Your task to perform on an android device: Search for vegetarian restaurants on Maps Image 0: 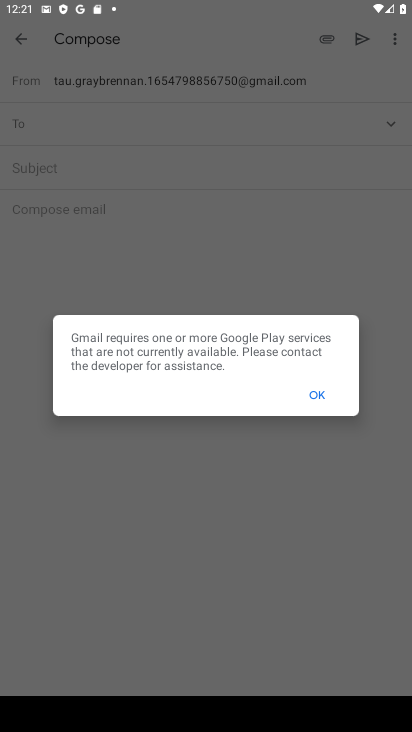
Step 0: press home button
Your task to perform on an android device: Search for vegetarian restaurants on Maps Image 1: 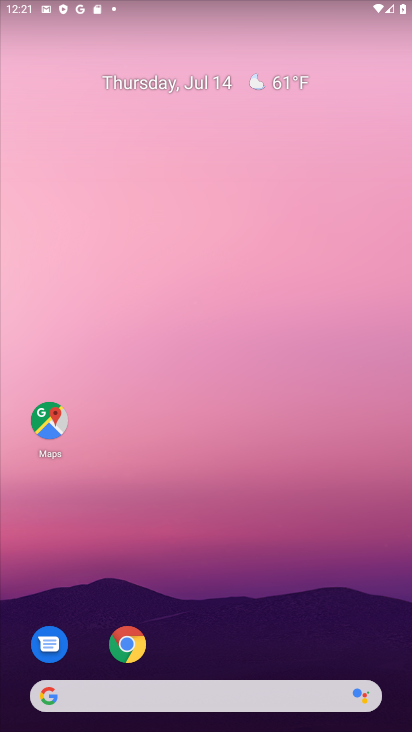
Step 1: click (62, 424)
Your task to perform on an android device: Search for vegetarian restaurants on Maps Image 2: 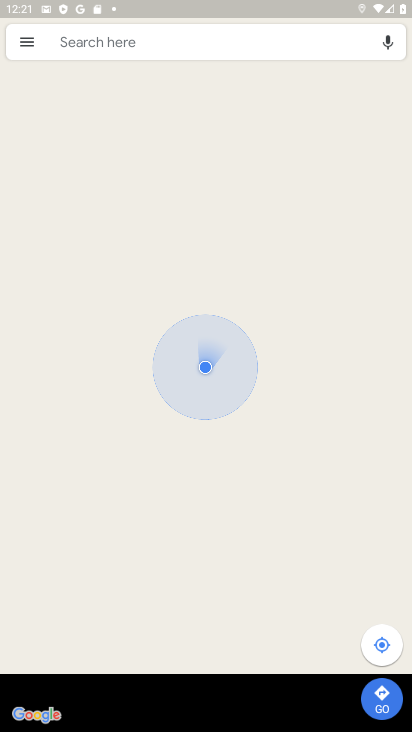
Step 2: click (272, 33)
Your task to perform on an android device: Search for vegetarian restaurants on Maps Image 3: 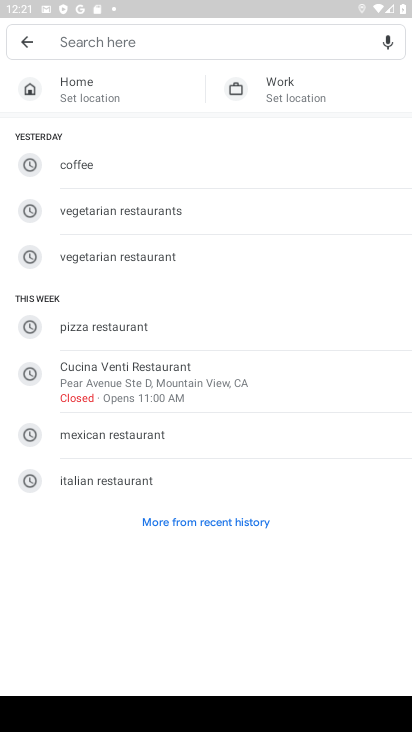
Step 3: type "vegetarian restaurants"
Your task to perform on an android device: Search for vegetarian restaurants on Maps Image 4: 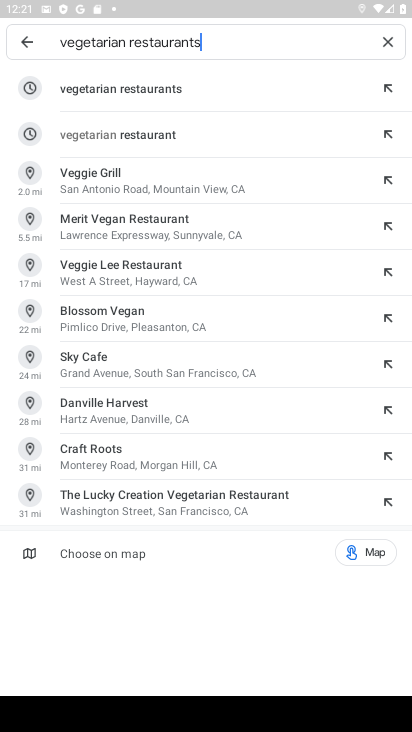
Step 4: click (156, 99)
Your task to perform on an android device: Search for vegetarian restaurants on Maps Image 5: 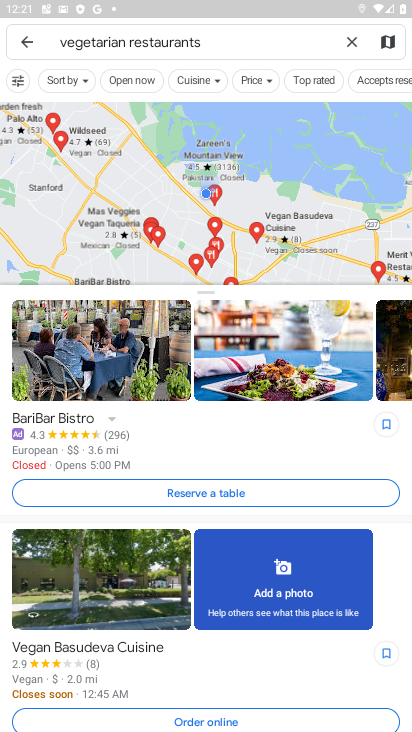
Step 5: task complete